Your task to perform on an android device: change the clock display to analog Image 0: 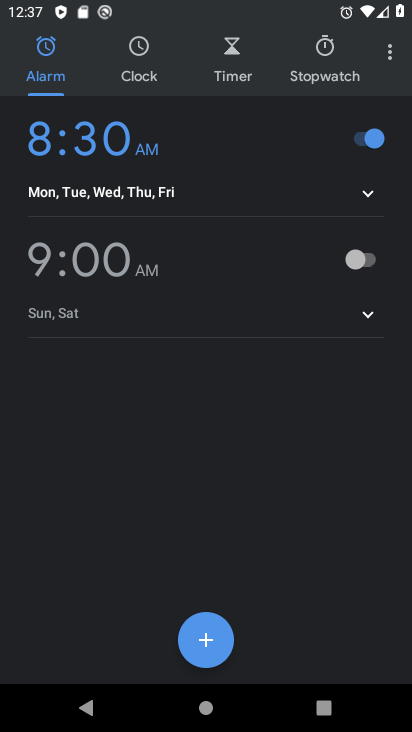
Step 0: click (379, 57)
Your task to perform on an android device: change the clock display to analog Image 1: 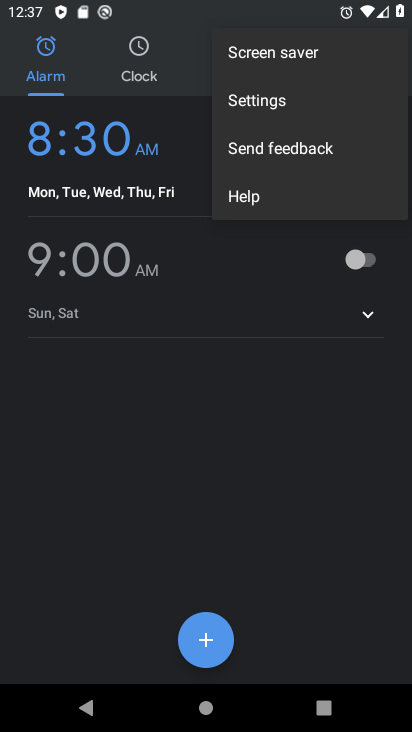
Step 1: click (339, 102)
Your task to perform on an android device: change the clock display to analog Image 2: 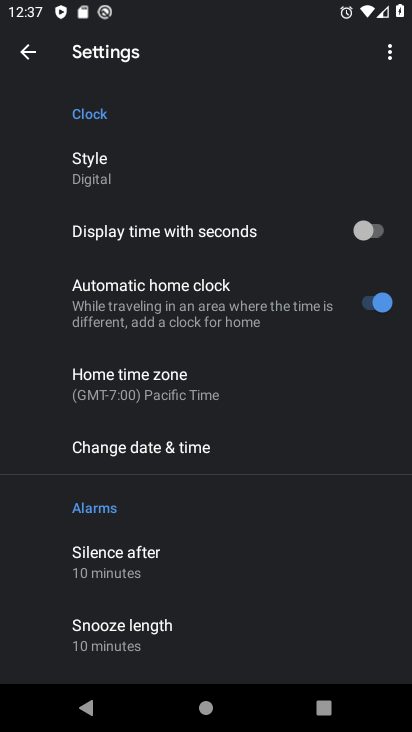
Step 2: click (201, 168)
Your task to perform on an android device: change the clock display to analog Image 3: 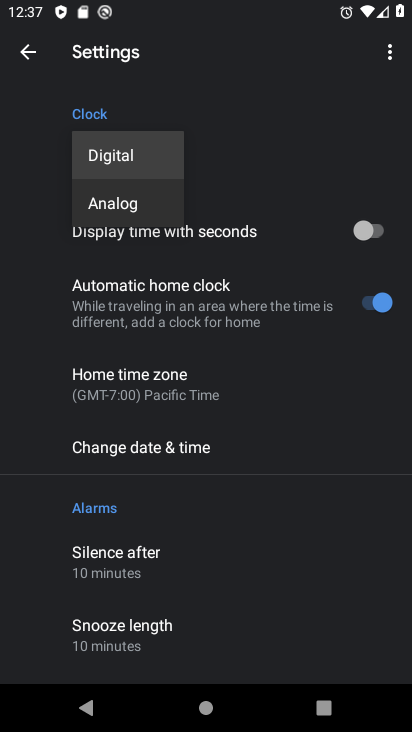
Step 3: click (161, 208)
Your task to perform on an android device: change the clock display to analog Image 4: 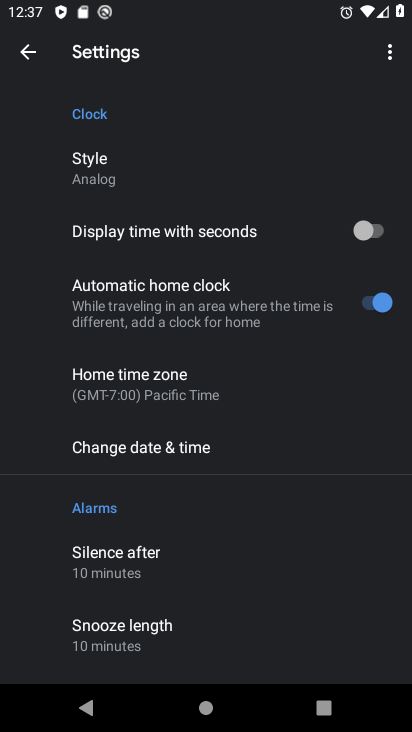
Step 4: task complete